Your task to perform on an android device: Go to Yahoo.com Image 0: 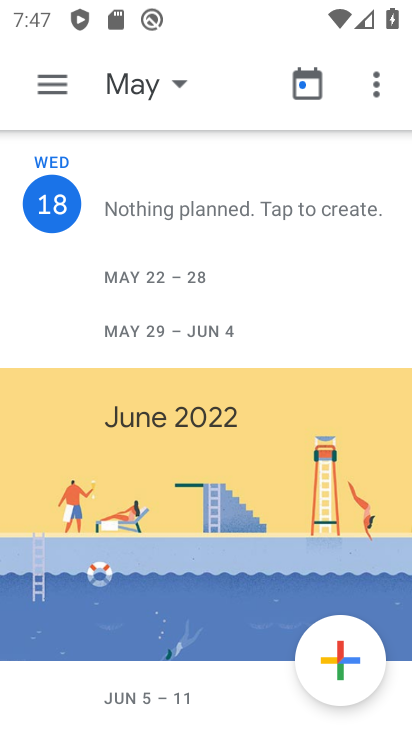
Step 0: press home button
Your task to perform on an android device: Go to Yahoo.com Image 1: 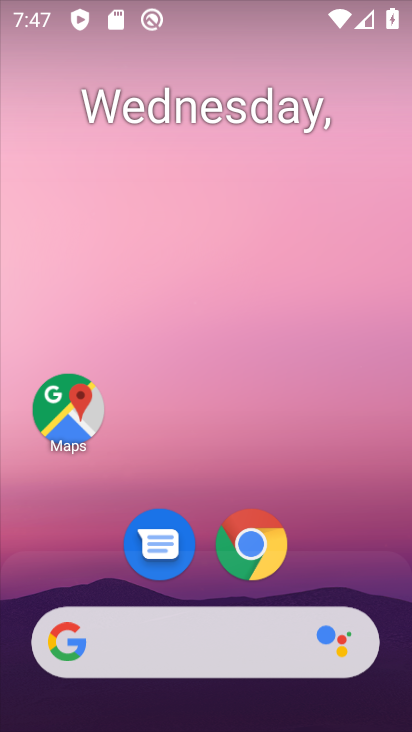
Step 1: click (242, 543)
Your task to perform on an android device: Go to Yahoo.com Image 2: 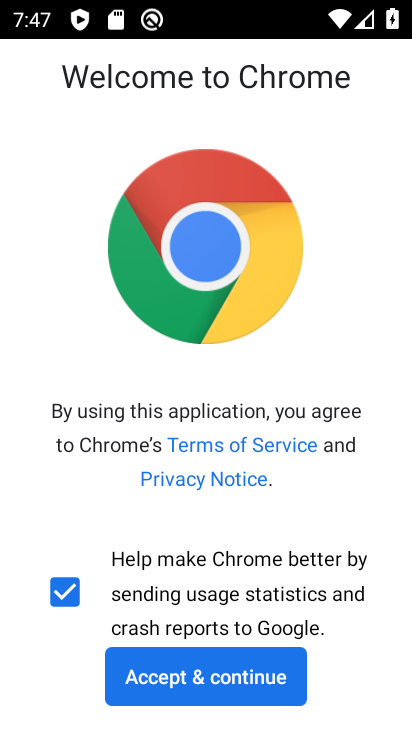
Step 2: click (202, 676)
Your task to perform on an android device: Go to Yahoo.com Image 3: 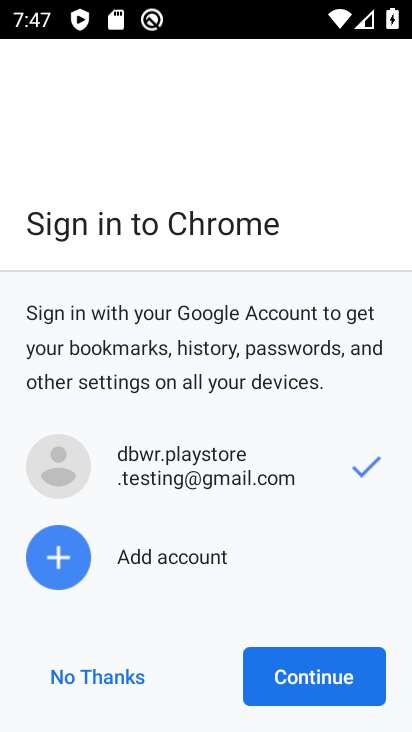
Step 3: click (299, 681)
Your task to perform on an android device: Go to Yahoo.com Image 4: 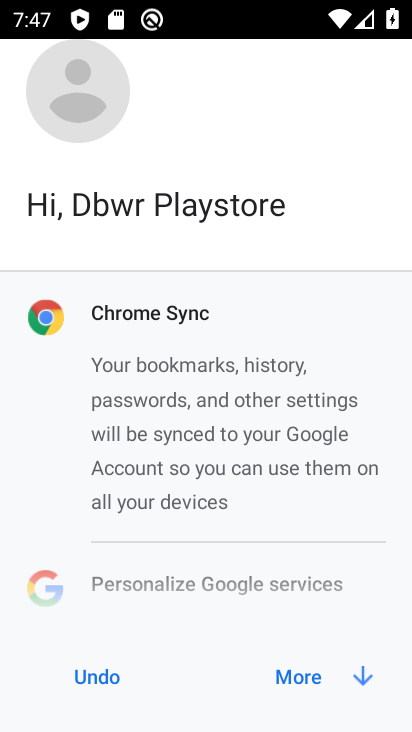
Step 4: click (299, 681)
Your task to perform on an android device: Go to Yahoo.com Image 5: 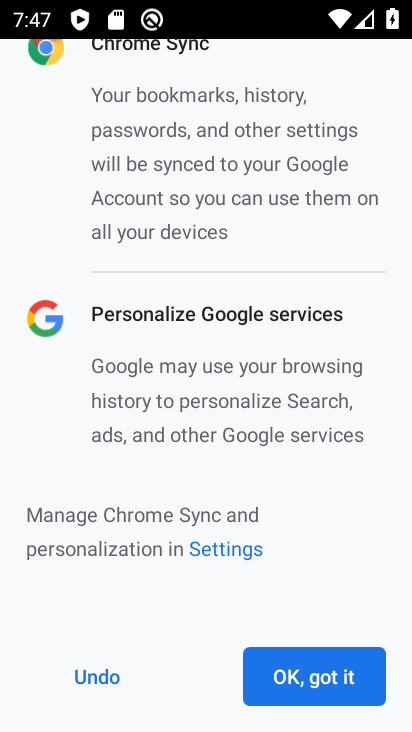
Step 5: click (302, 676)
Your task to perform on an android device: Go to Yahoo.com Image 6: 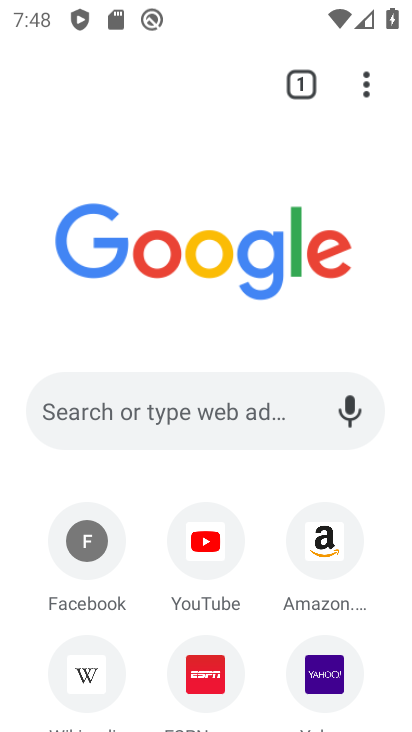
Step 6: click (206, 417)
Your task to perform on an android device: Go to Yahoo.com Image 7: 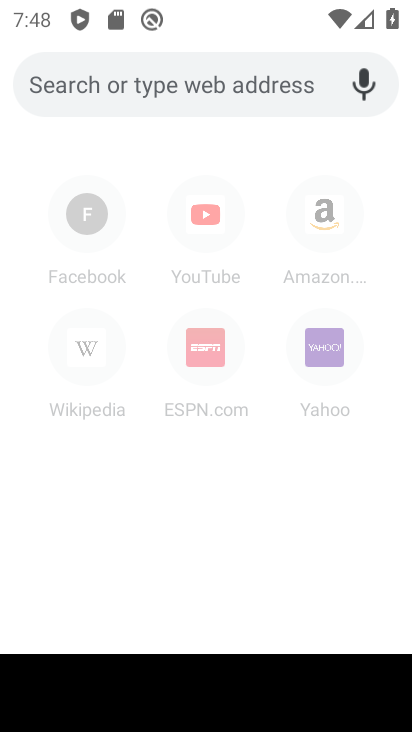
Step 7: type "Yahoo.com"
Your task to perform on an android device: Go to Yahoo.com Image 8: 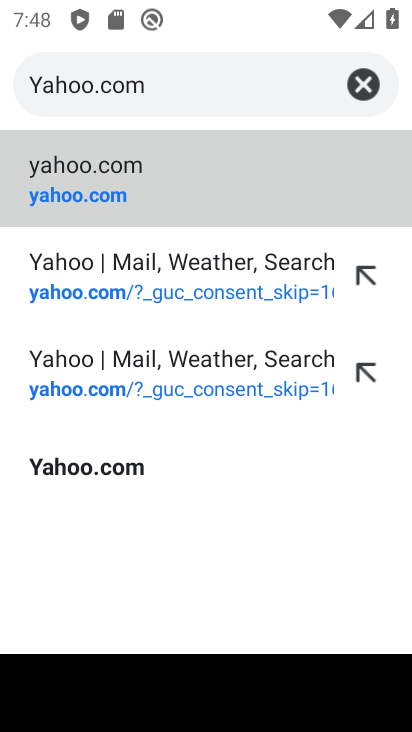
Step 8: click (115, 168)
Your task to perform on an android device: Go to Yahoo.com Image 9: 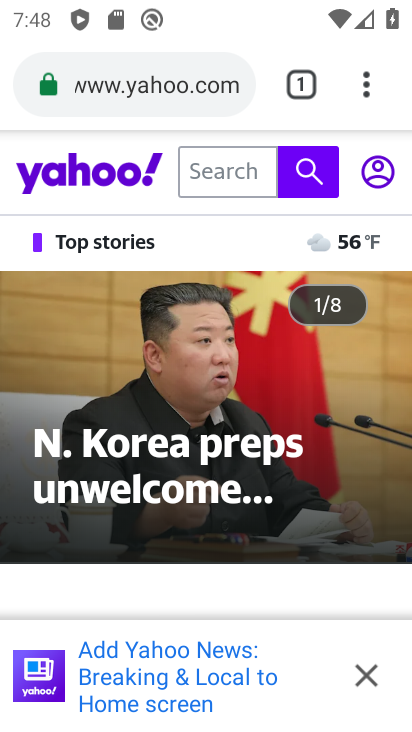
Step 9: task complete